Your task to perform on an android device: toggle javascript in the chrome app Image 0: 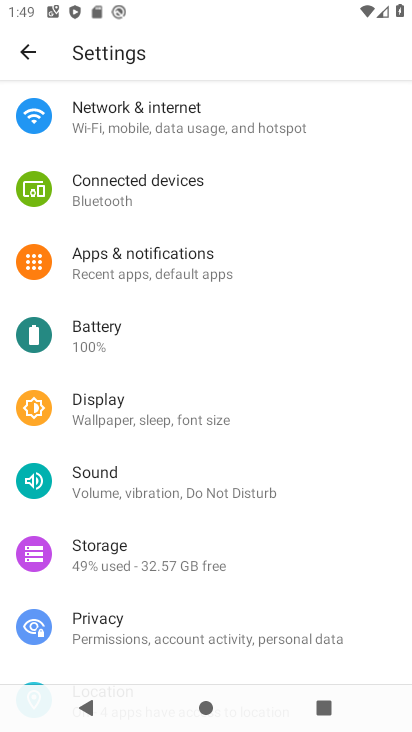
Step 0: press home button
Your task to perform on an android device: toggle javascript in the chrome app Image 1: 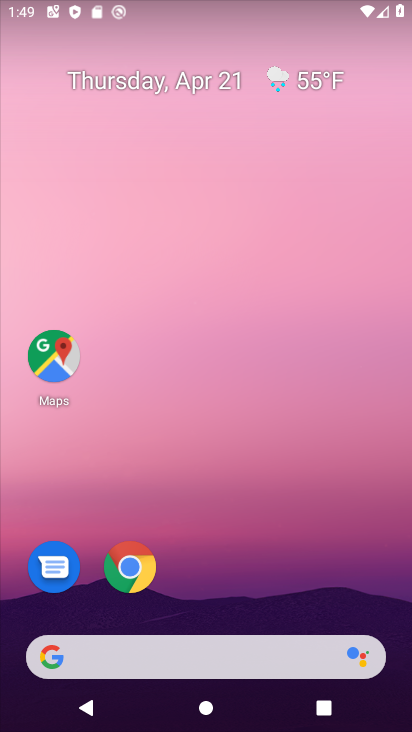
Step 1: click (124, 563)
Your task to perform on an android device: toggle javascript in the chrome app Image 2: 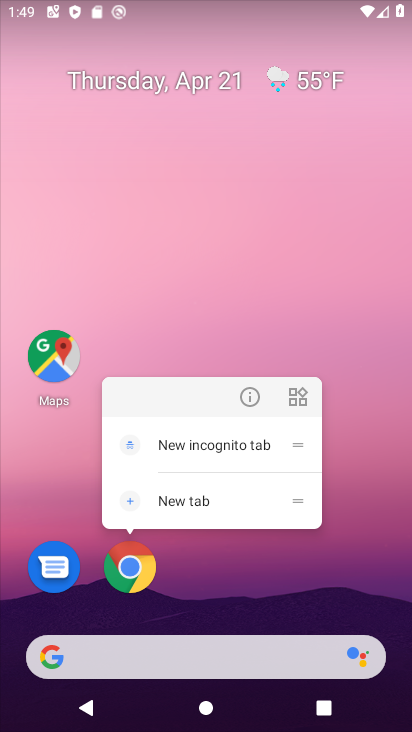
Step 2: click (380, 573)
Your task to perform on an android device: toggle javascript in the chrome app Image 3: 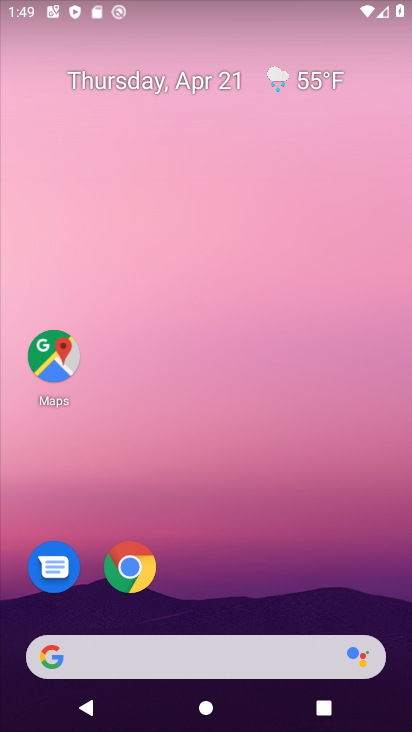
Step 3: drag from (272, 566) to (186, 7)
Your task to perform on an android device: toggle javascript in the chrome app Image 4: 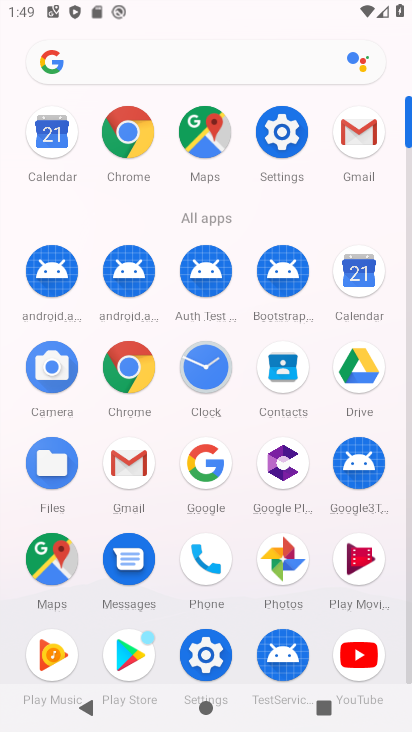
Step 4: click (125, 358)
Your task to perform on an android device: toggle javascript in the chrome app Image 5: 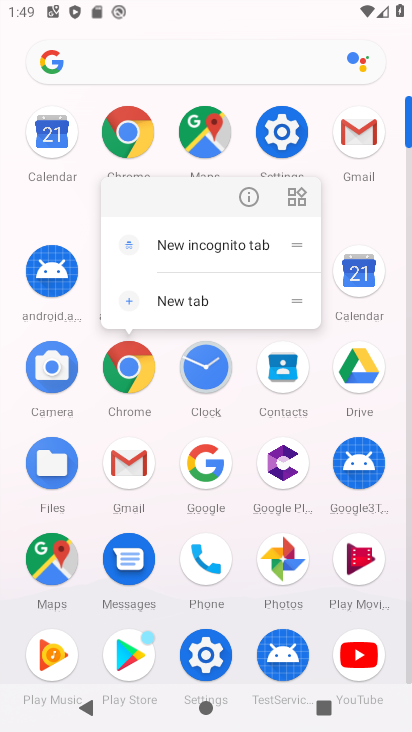
Step 5: click (134, 362)
Your task to perform on an android device: toggle javascript in the chrome app Image 6: 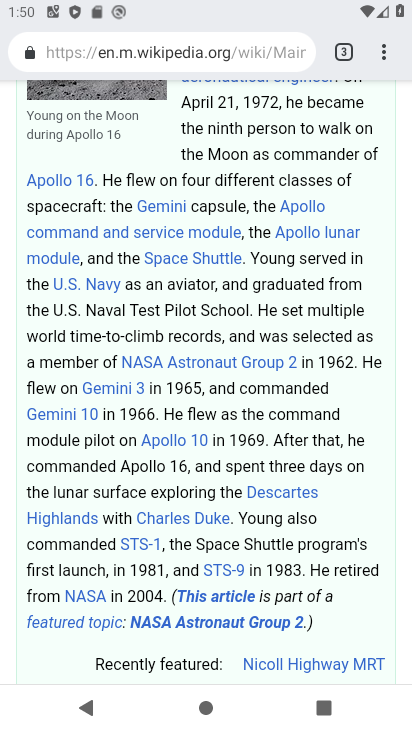
Step 6: click (387, 47)
Your task to perform on an android device: toggle javascript in the chrome app Image 7: 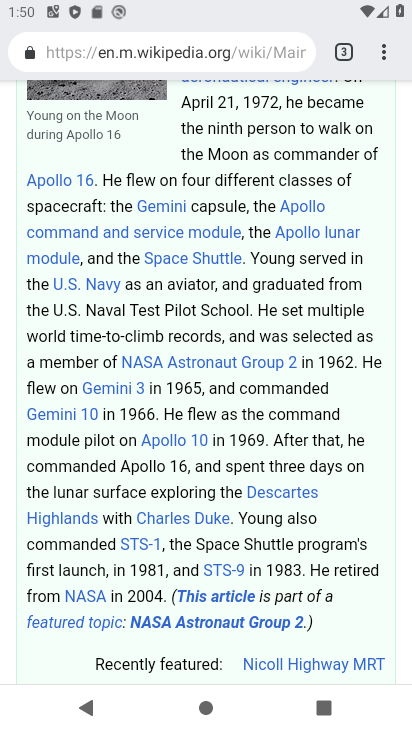
Step 7: click (381, 50)
Your task to perform on an android device: toggle javascript in the chrome app Image 8: 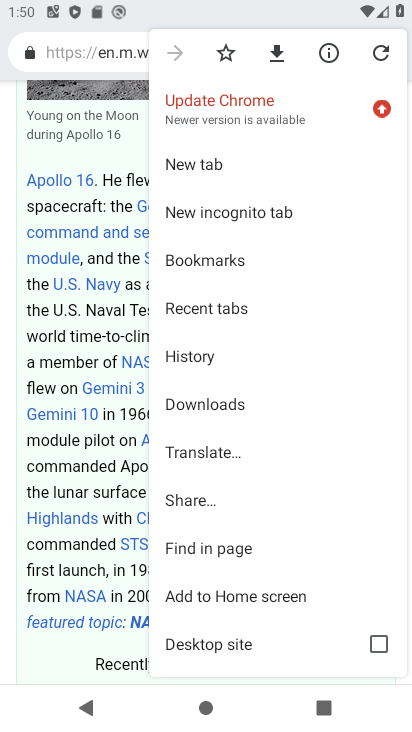
Step 8: drag from (264, 577) to (296, 131)
Your task to perform on an android device: toggle javascript in the chrome app Image 9: 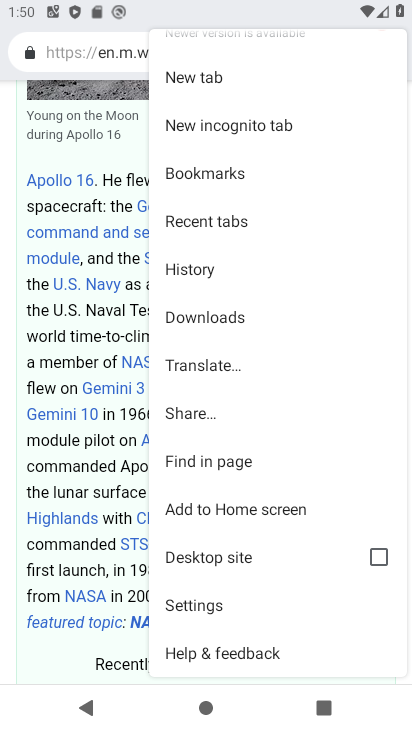
Step 9: click (223, 603)
Your task to perform on an android device: toggle javascript in the chrome app Image 10: 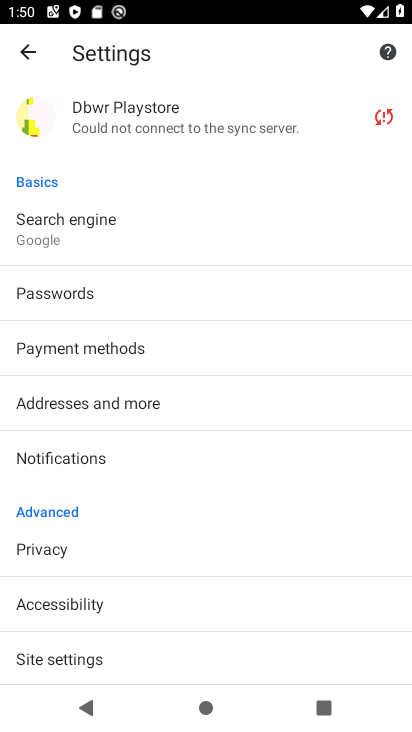
Step 10: click (156, 652)
Your task to perform on an android device: toggle javascript in the chrome app Image 11: 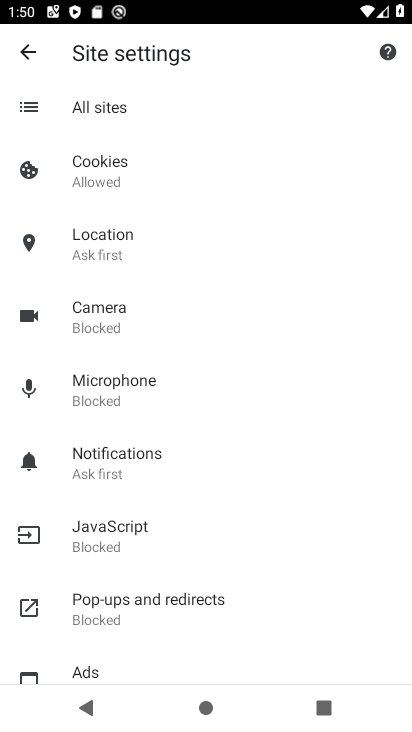
Step 11: click (162, 540)
Your task to perform on an android device: toggle javascript in the chrome app Image 12: 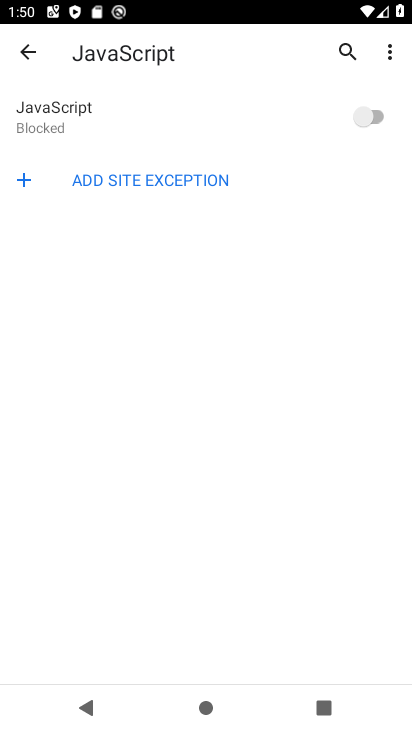
Step 12: click (365, 117)
Your task to perform on an android device: toggle javascript in the chrome app Image 13: 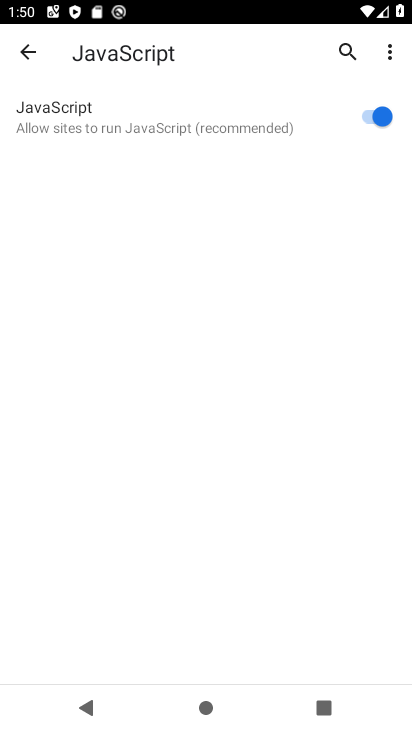
Step 13: task complete